Your task to perform on an android device: Open Google Maps and go to "Timeline" Image 0: 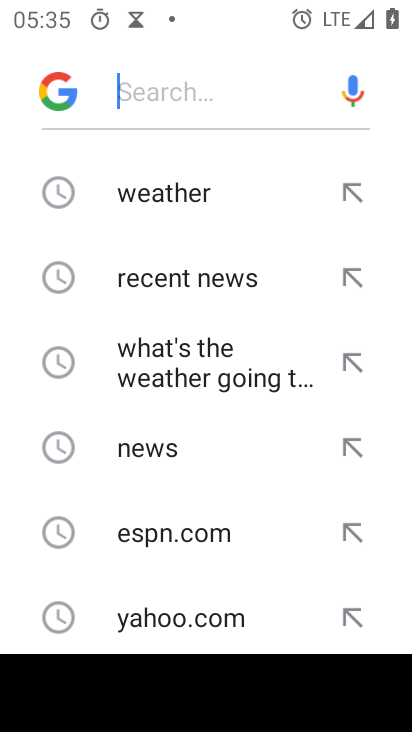
Step 0: press home button
Your task to perform on an android device: Open Google Maps and go to "Timeline" Image 1: 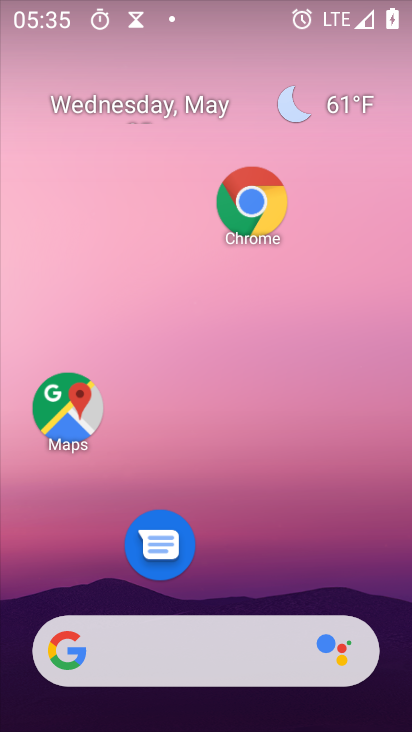
Step 1: click (83, 413)
Your task to perform on an android device: Open Google Maps and go to "Timeline" Image 2: 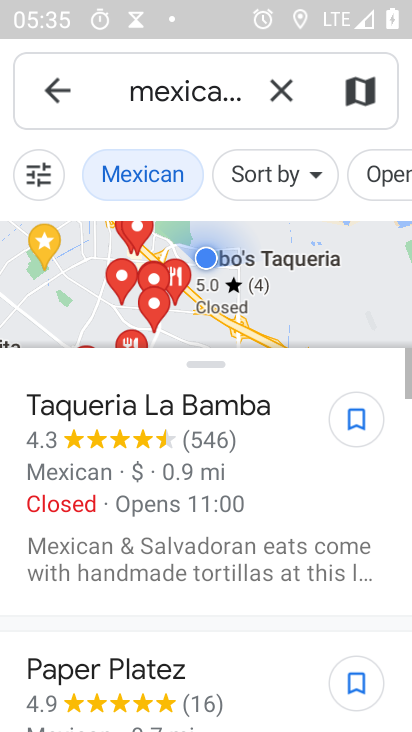
Step 2: click (289, 90)
Your task to perform on an android device: Open Google Maps and go to "Timeline" Image 3: 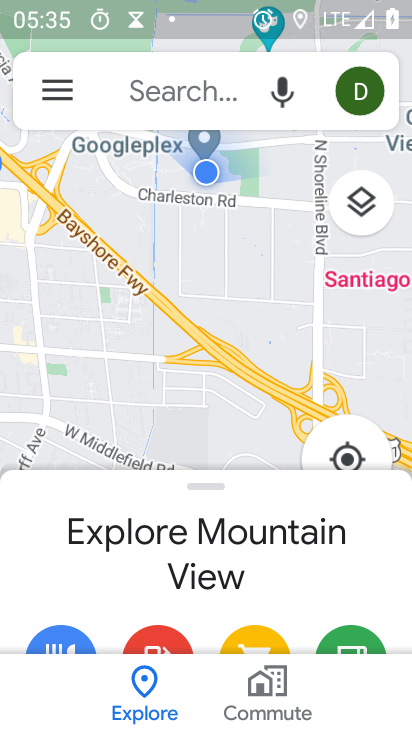
Step 3: click (52, 93)
Your task to perform on an android device: Open Google Maps and go to "Timeline" Image 4: 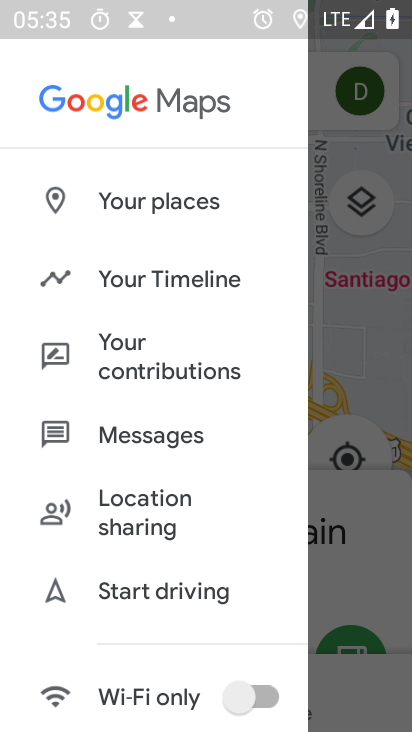
Step 4: click (187, 285)
Your task to perform on an android device: Open Google Maps and go to "Timeline" Image 5: 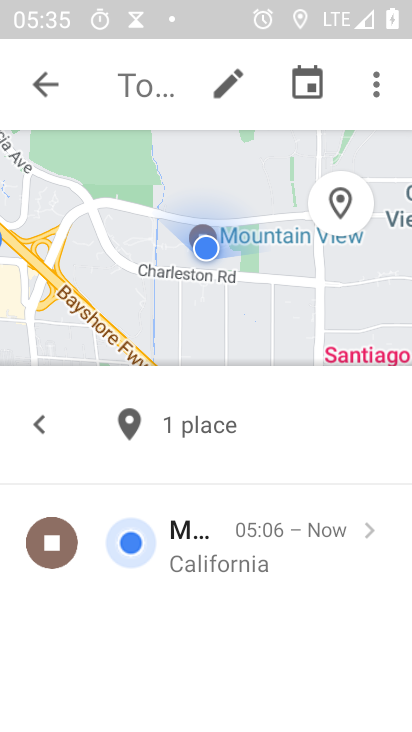
Step 5: task complete